Your task to perform on an android device: Go to Google maps Image 0: 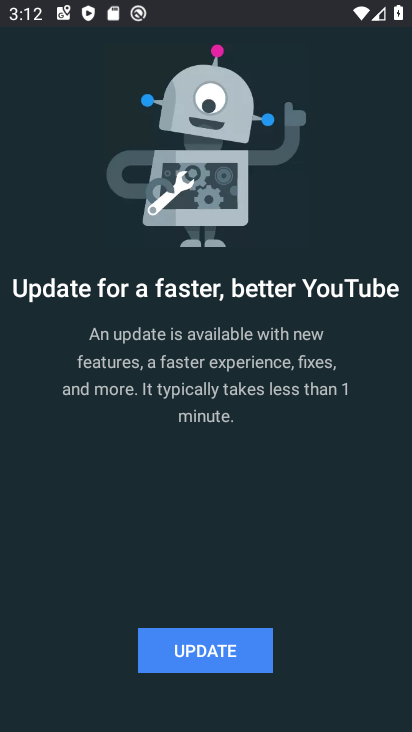
Step 0: press home button
Your task to perform on an android device: Go to Google maps Image 1: 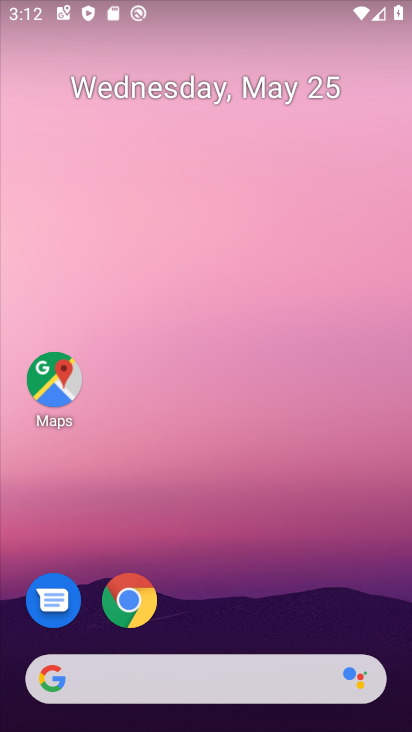
Step 1: click (54, 370)
Your task to perform on an android device: Go to Google maps Image 2: 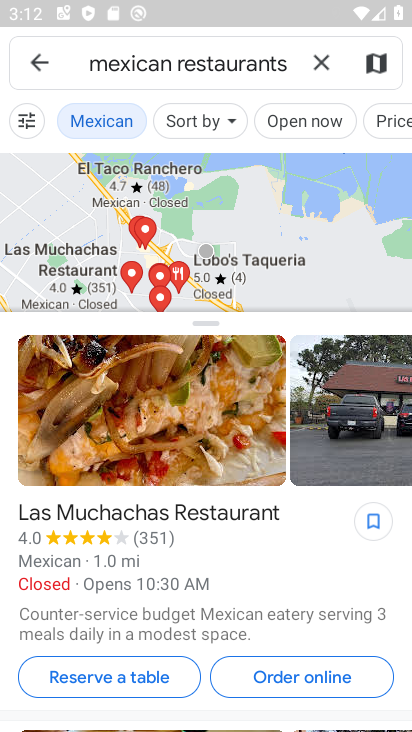
Step 2: click (43, 60)
Your task to perform on an android device: Go to Google maps Image 3: 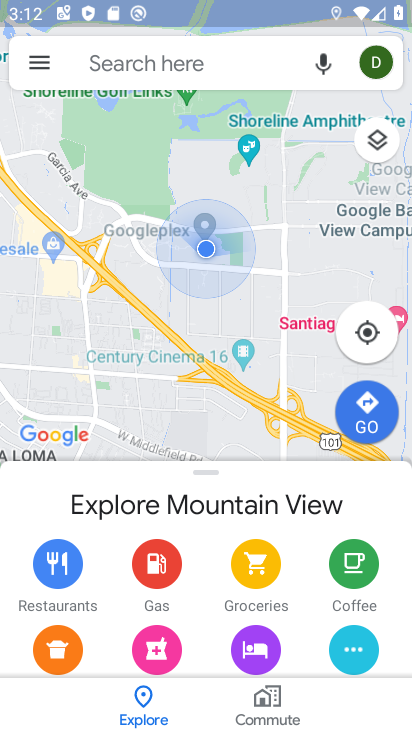
Step 3: task complete